Your task to perform on an android device: Do I have any events today? Image 0: 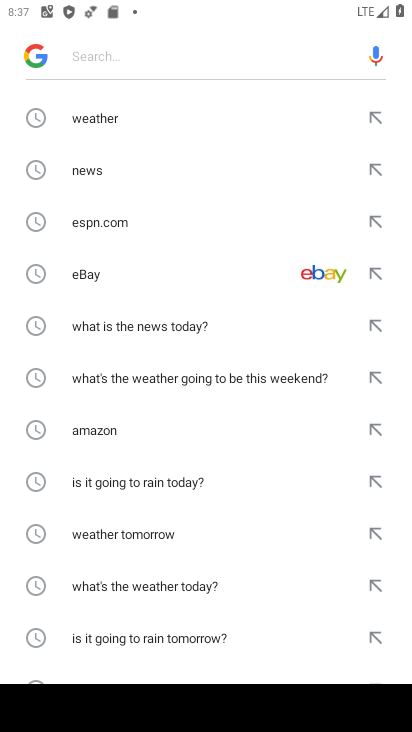
Step 0: press home button
Your task to perform on an android device: Do I have any events today? Image 1: 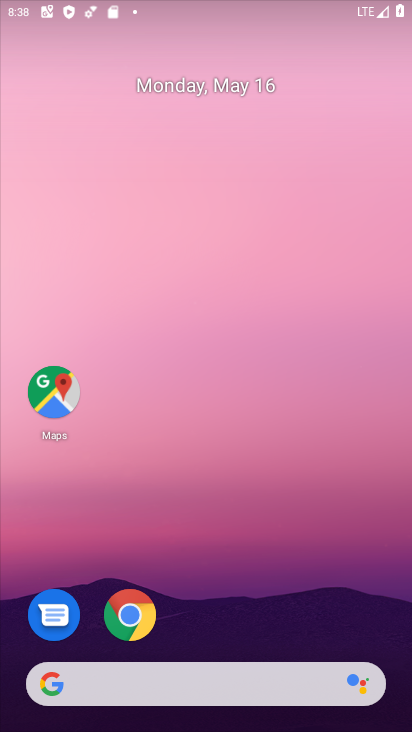
Step 1: drag from (233, 623) to (245, 156)
Your task to perform on an android device: Do I have any events today? Image 2: 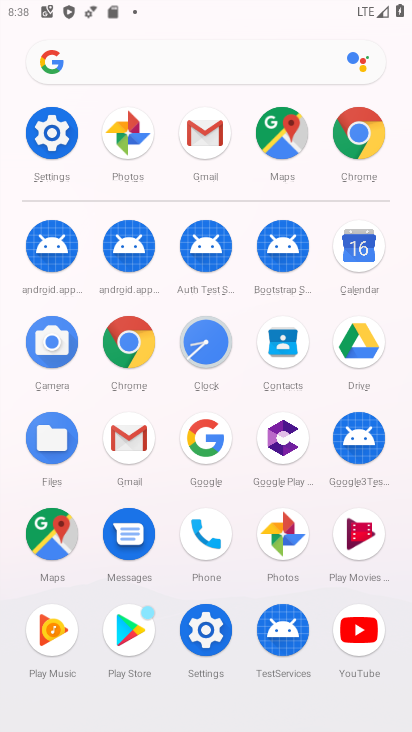
Step 2: click (364, 265)
Your task to perform on an android device: Do I have any events today? Image 3: 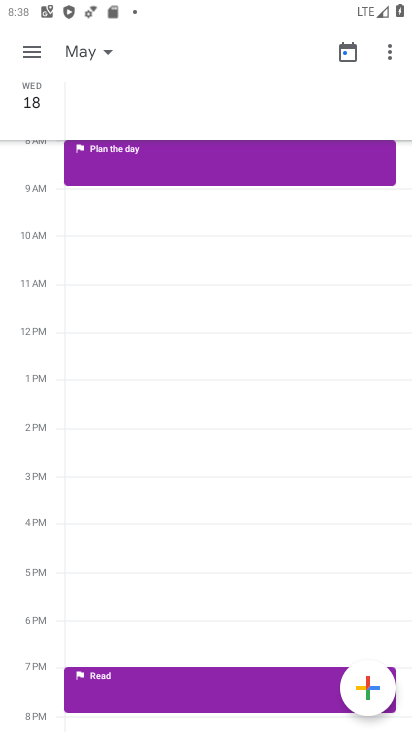
Step 3: click (101, 44)
Your task to perform on an android device: Do I have any events today? Image 4: 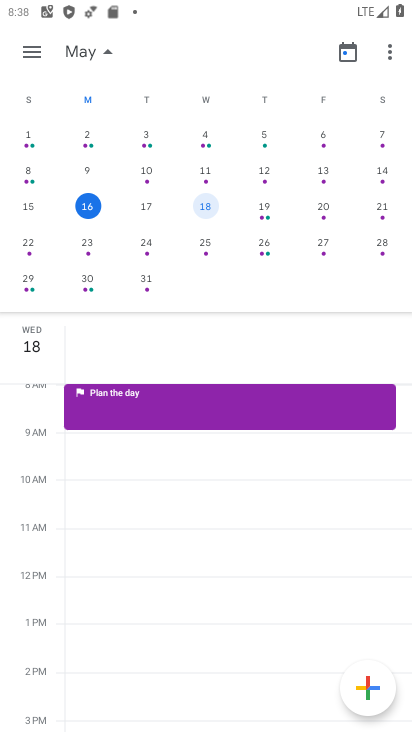
Step 4: click (146, 212)
Your task to perform on an android device: Do I have any events today? Image 5: 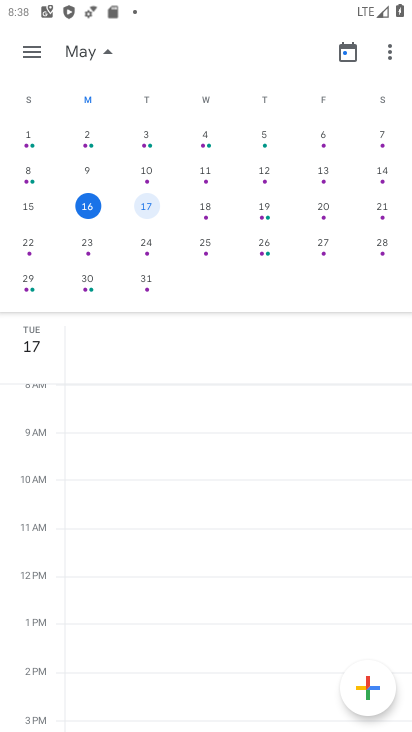
Step 5: click (38, 43)
Your task to perform on an android device: Do I have any events today? Image 6: 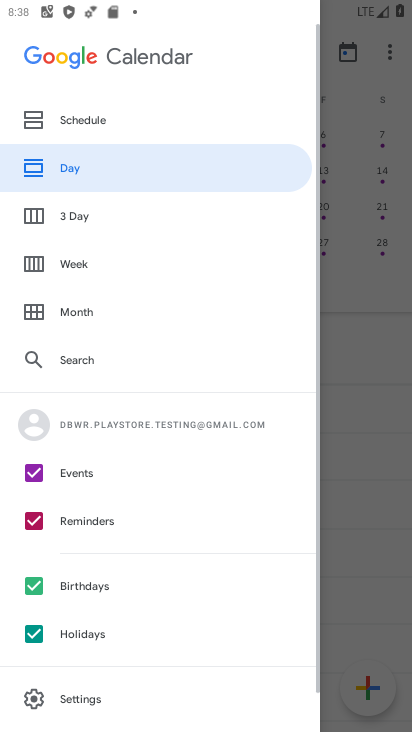
Step 6: click (115, 114)
Your task to perform on an android device: Do I have any events today? Image 7: 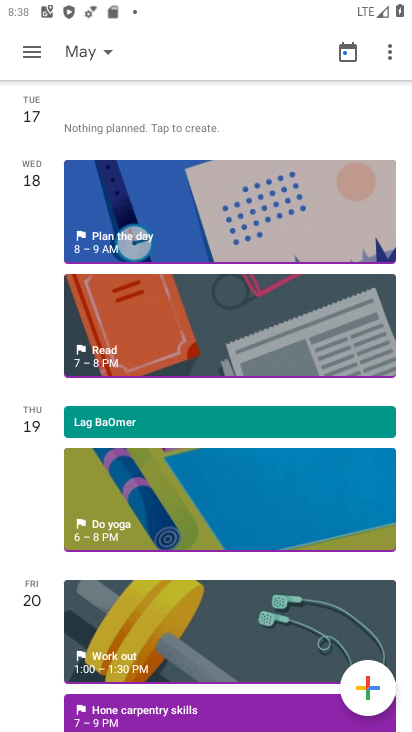
Step 7: drag from (73, 253) to (83, 573)
Your task to perform on an android device: Do I have any events today? Image 8: 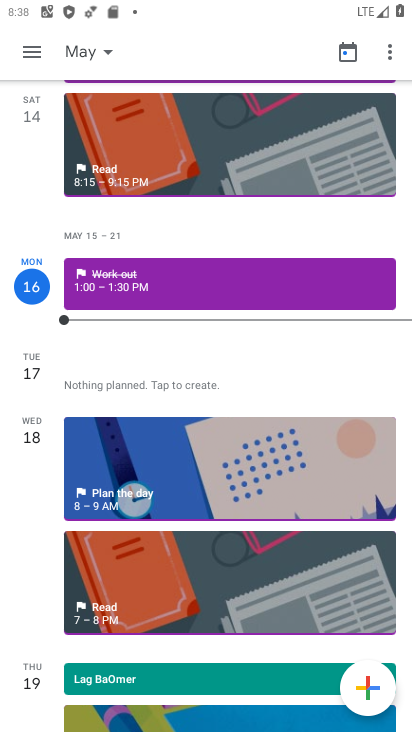
Step 8: click (36, 370)
Your task to perform on an android device: Do I have any events today? Image 9: 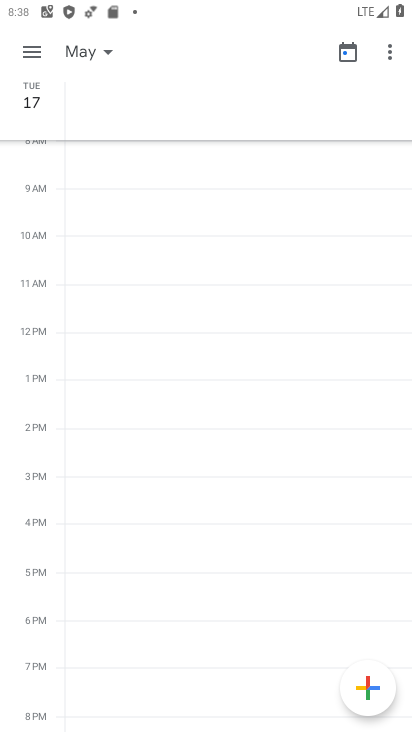
Step 9: task complete